Your task to perform on an android device: toggle sleep mode Image 0: 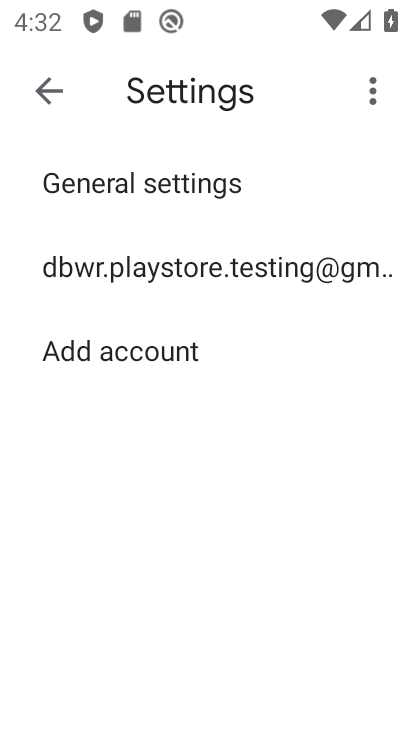
Step 0: press home button
Your task to perform on an android device: toggle sleep mode Image 1: 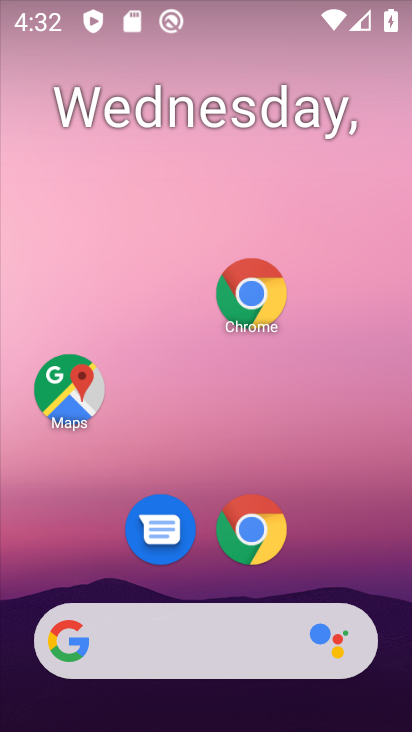
Step 1: drag from (328, 525) to (362, 145)
Your task to perform on an android device: toggle sleep mode Image 2: 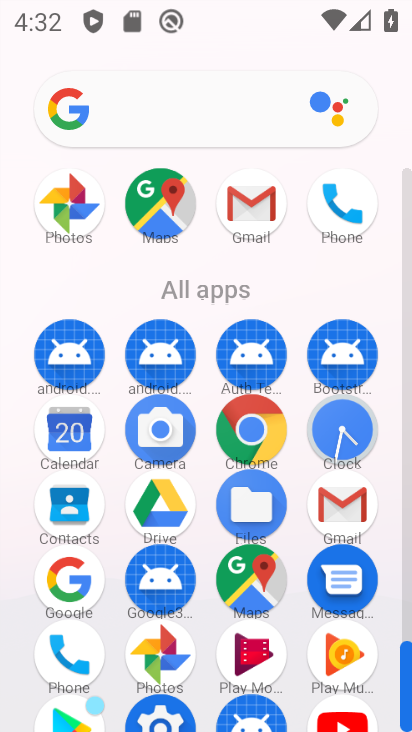
Step 2: drag from (291, 662) to (295, 254)
Your task to perform on an android device: toggle sleep mode Image 3: 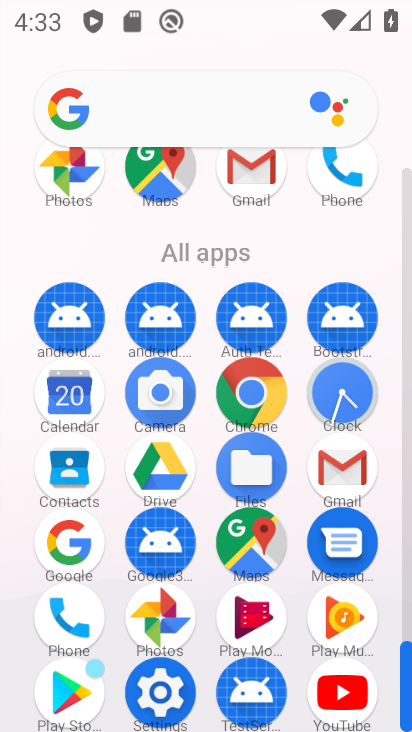
Step 3: click (157, 698)
Your task to perform on an android device: toggle sleep mode Image 4: 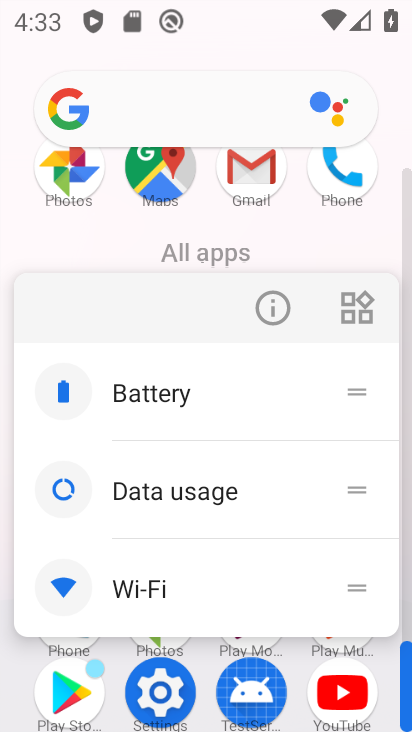
Step 4: click (158, 685)
Your task to perform on an android device: toggle sleep mode Image 5: 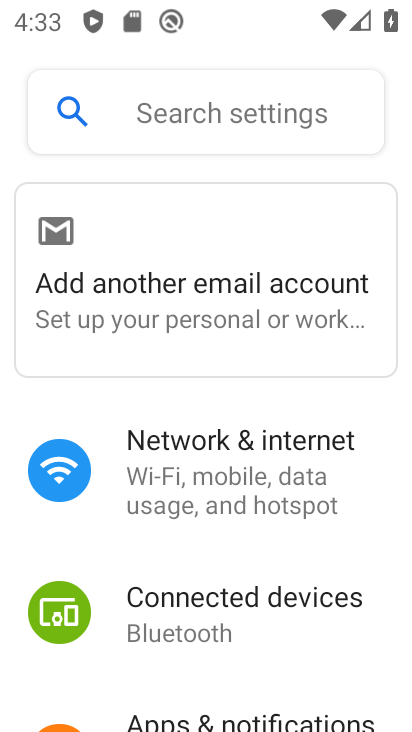
Step 5: drag from (210, 684) to (239, 251)
Your task to perform on an android device: toggle sleep mode Image 6: 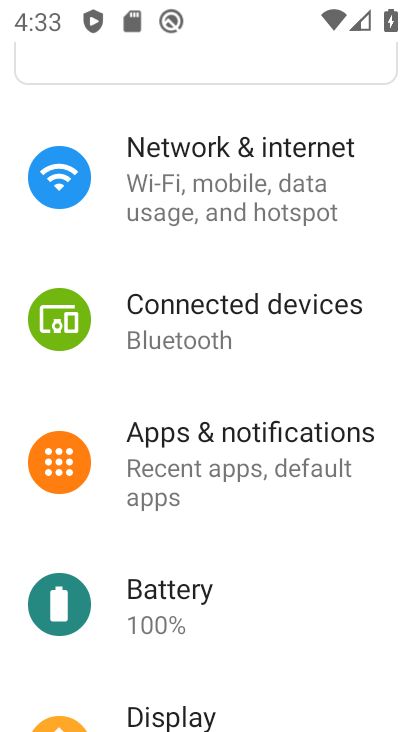
Step 6: drag from (222, 688) to (256, 432)
Your task to perform on an android device: toggle sleep mode Image 7: 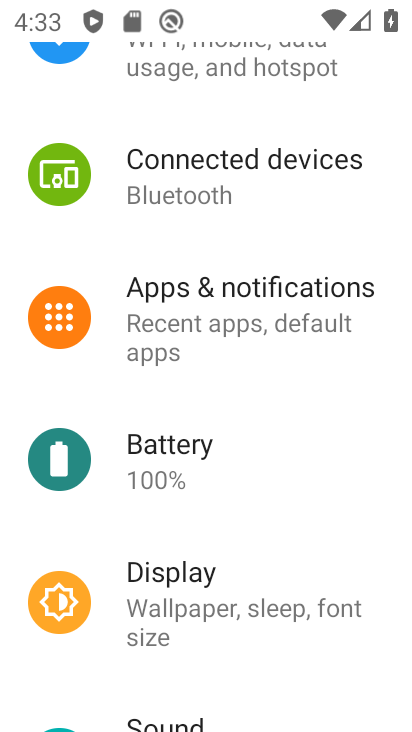
Step 7: click (222, 615)
Your task to perform on an android device: toggle sleep mode Image 8: 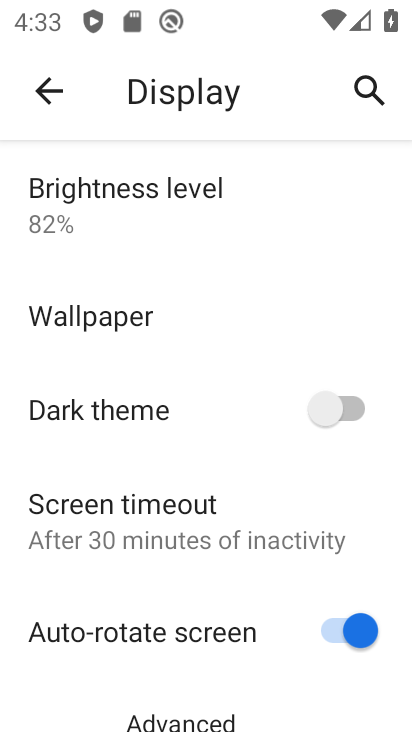
Step 8: drag from (206, 475) to (221, 204)
Your task to perform on an android device: toggle sleep mode Image 9: 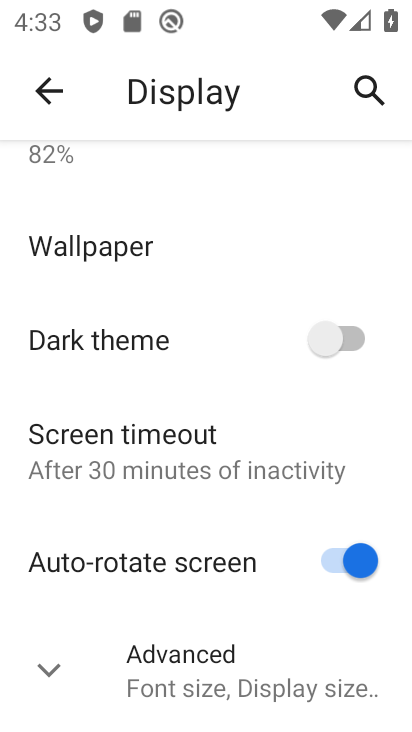
Step 9: click (50, 661)
Your task to perform on an android device: toggle sleep mode Image 10: 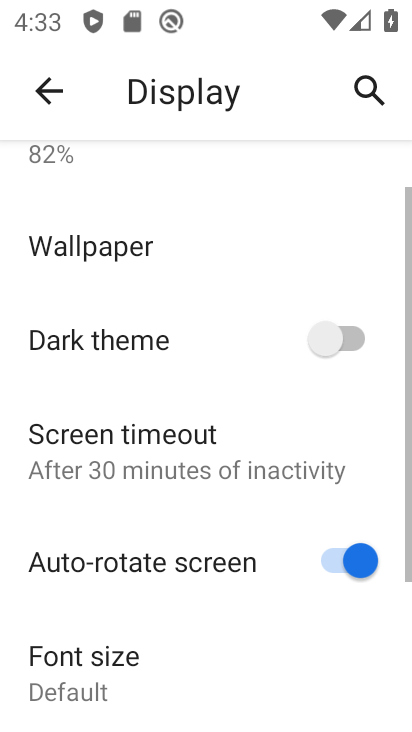
Step 10: task complete